Your task to perform on an android device: delete a single message in the gmail app Image 0: 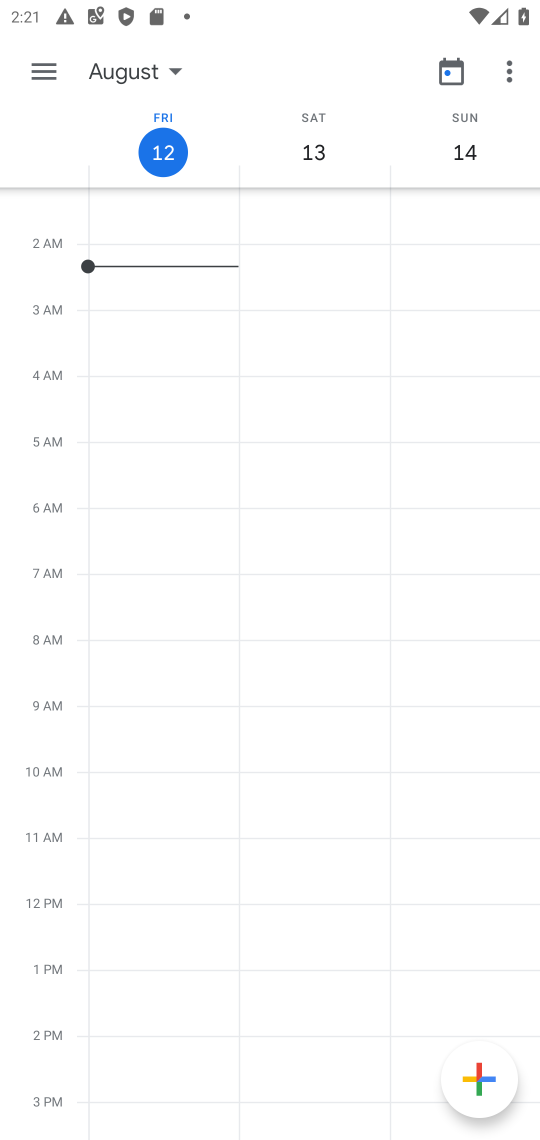
Step 0: press home button
Your task to perform on an android device: delete a single message in the gmail app Image 1: 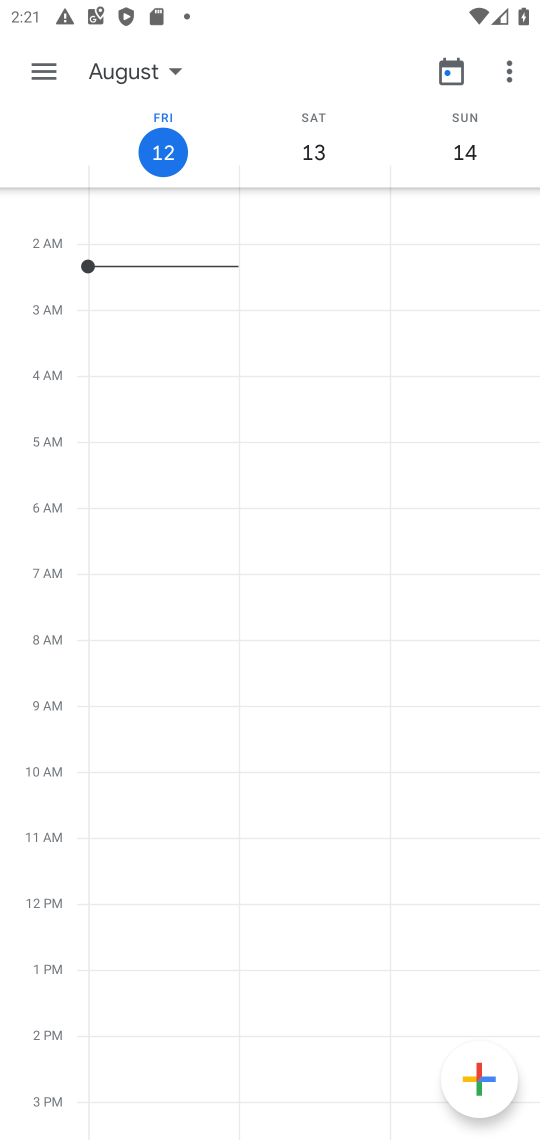
Step 1: press home button
Your task to perform on an android device: delete a single message in the gmail app Image 2: 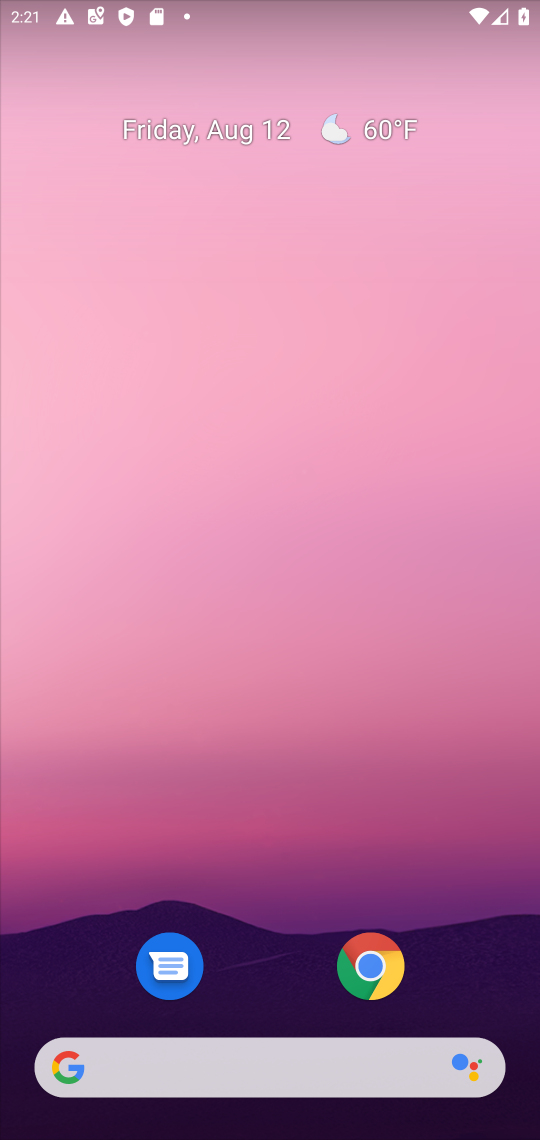
Step 2: drag from (268, 938) to (280, 17)
Your task to perform on an android device: delete a single message in the gmail app Image 3: 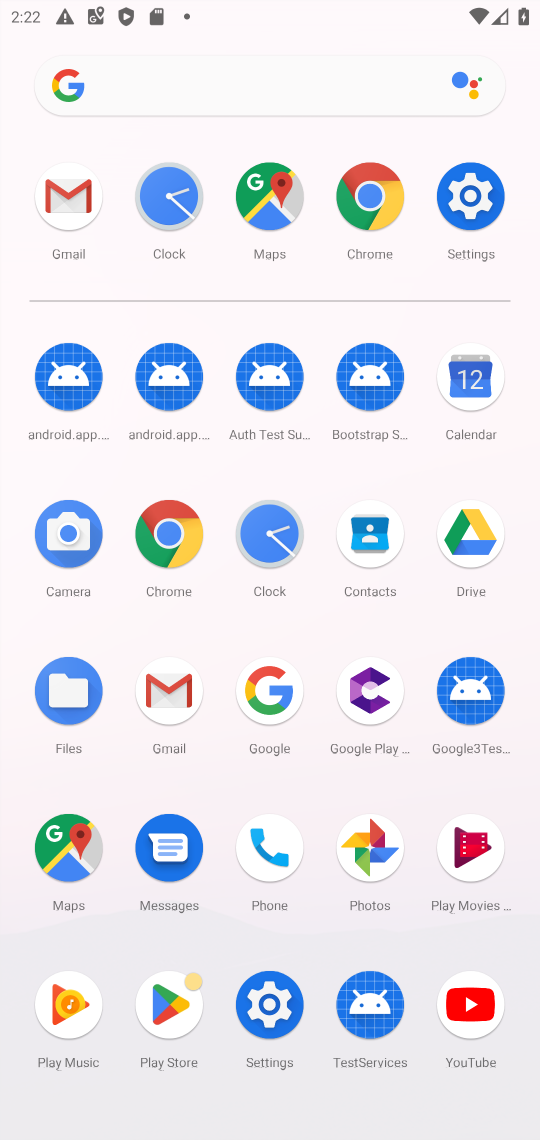
Step 3: click (165, 695)
Your task to perform on an android device: delete a single message in the gmail app Image 4: 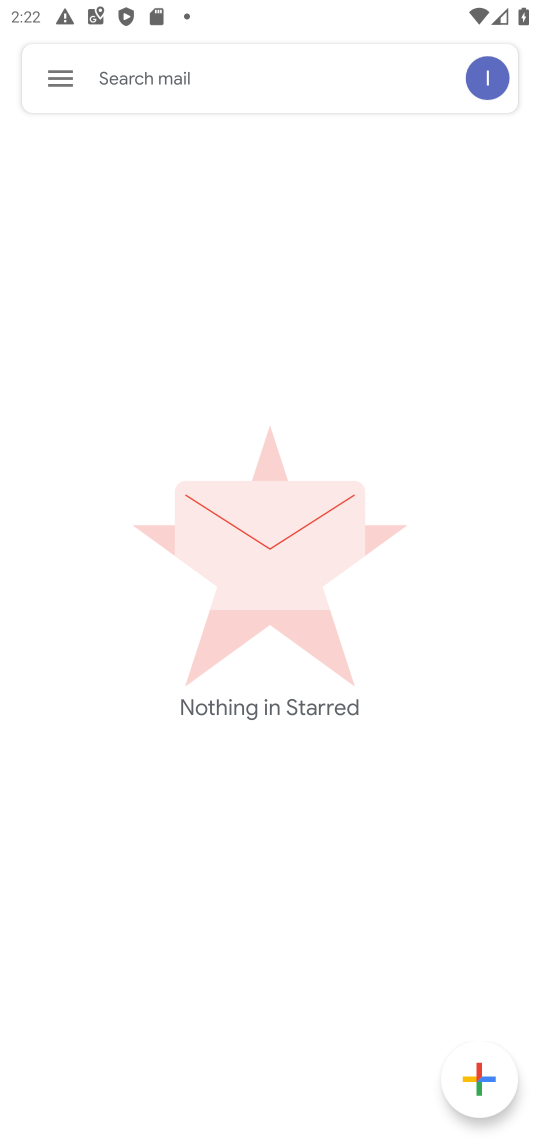
Step 4: click (65, 81)
Your task to perform on an android device: delete a single message in the gmail app Image 5: 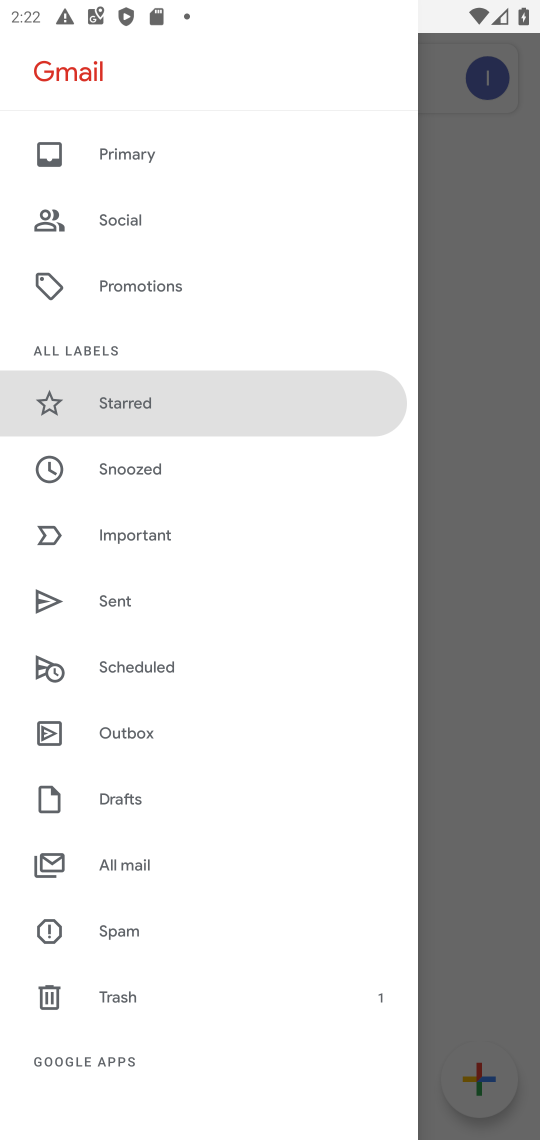
Step 5: click (122, 866)
Your task to perform on an android device: delete a single message in the gmail app Image 6: 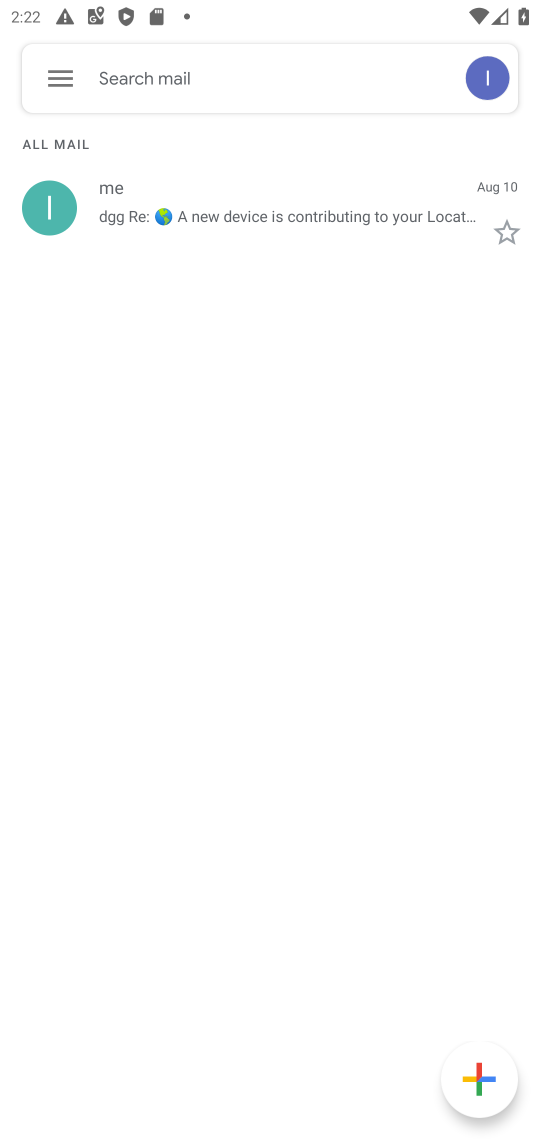
Step 6: click (258, 224)
Your task to perform on an android device: delete a single message in the gmail app Image 7: 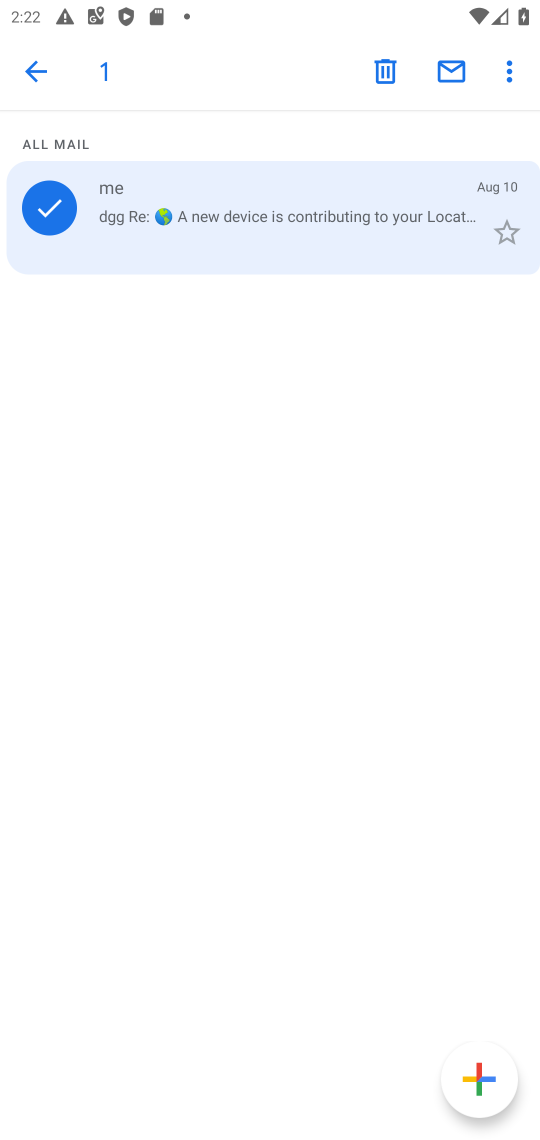
Step 7: click (380, 74)
Your task to perform on an android device: delete a single message in the gmail app Image 8: 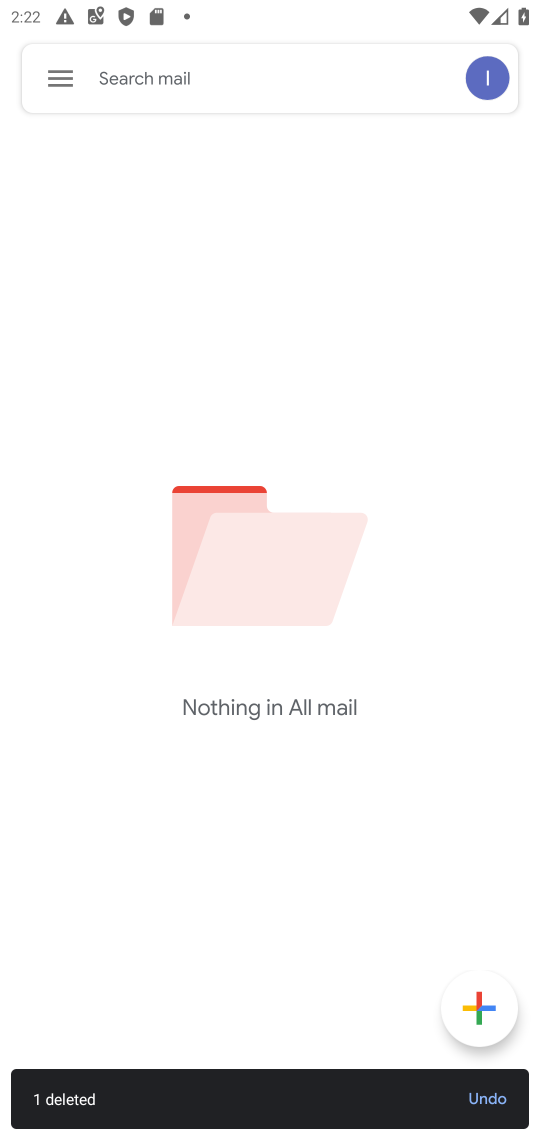
Step 8: task complete